Your task to perform on an android device: see creations saved in the google photos Image 0: 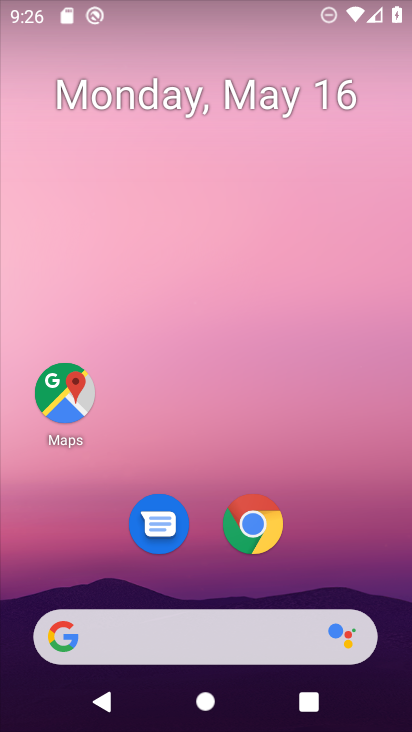
Step 0: drag from (347, 528) to (338, 93)
Your task to perform on an android device: see creations saved in the google photos Image 1: 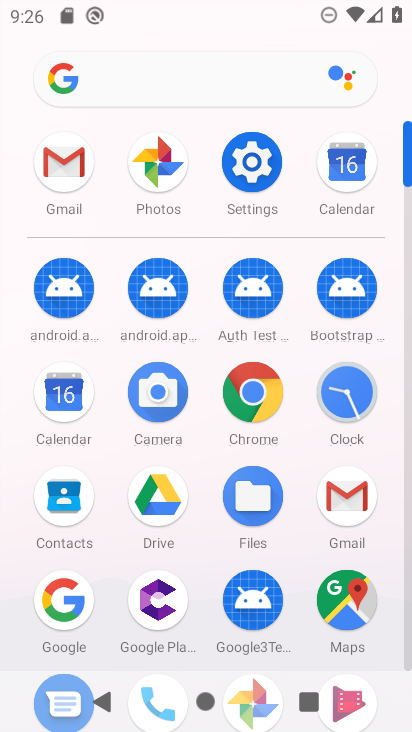
Step 1: click (161, 163)
Your task to perform on an android device: see creations saved in the google photos Image 2: 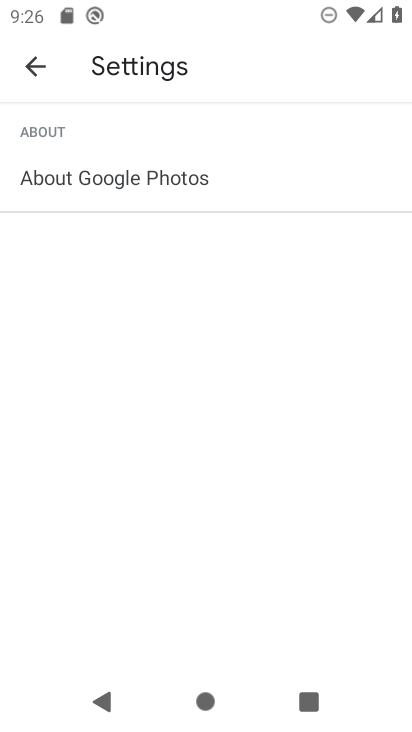
Step 2: click (40, 62)
Your task to perform on an android device: see creations saved in the google photos Image 3: 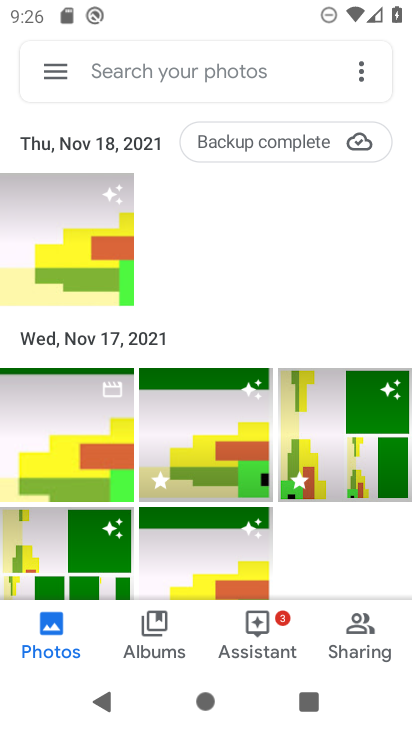
Step 3: click (229, 68)
Your task to perform on an android device: see creations saved in the google photos Image 4: 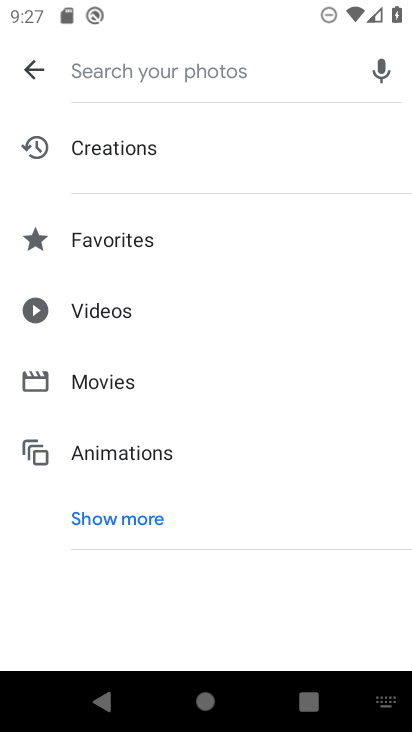
Step 4: click (149, 510)
Your task to perform on an android device: see creations saved in the google photos Image 5: 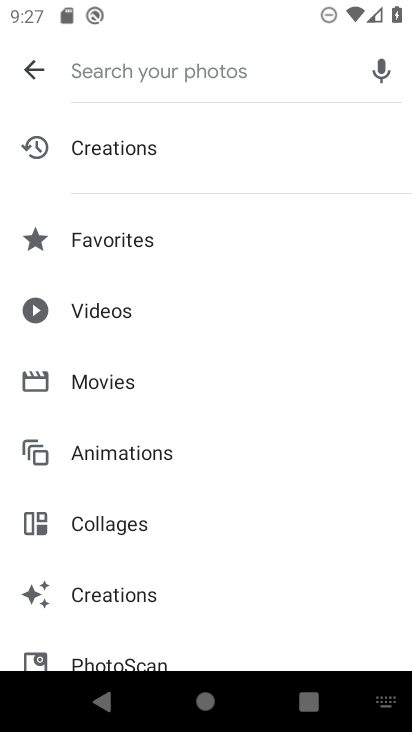
Step 5: click (143, 590)
Your task to perform on an android device: see creations saved in the google photos Image 6: 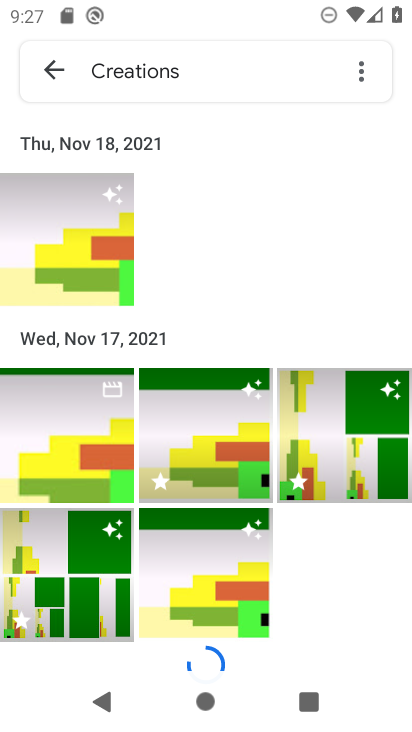
Step 6: task complete